Your task to perform on an android device: turn notification dots off Image 0: 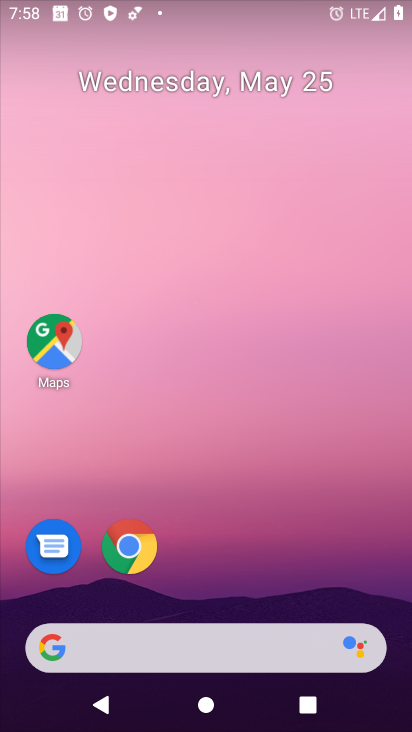
Step 0: drag from (371, 579) to (362, 266)
Your task to perform on an android device: turn notification dots off Image 1: 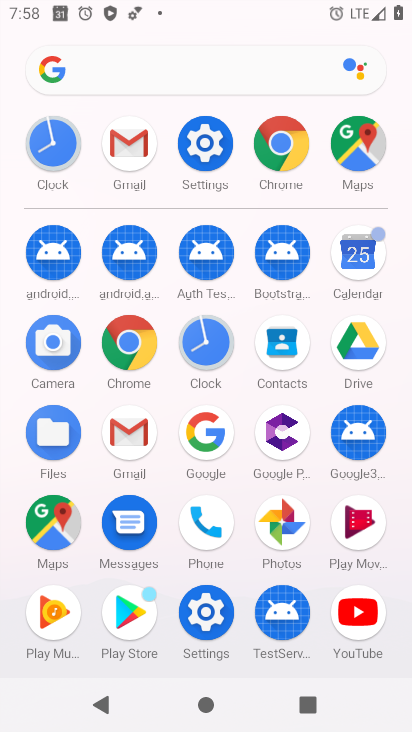
Step 1: click (212, 614)
Your task to perform on an android device: turn notification dots off Image 2: 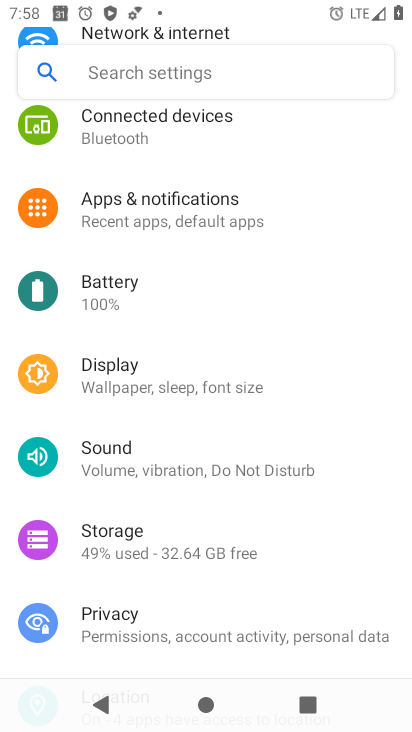
Step 2: drag from (365, 418) to (367, 355)
Your task to perform on an android device: turn notification dots off Image 3: 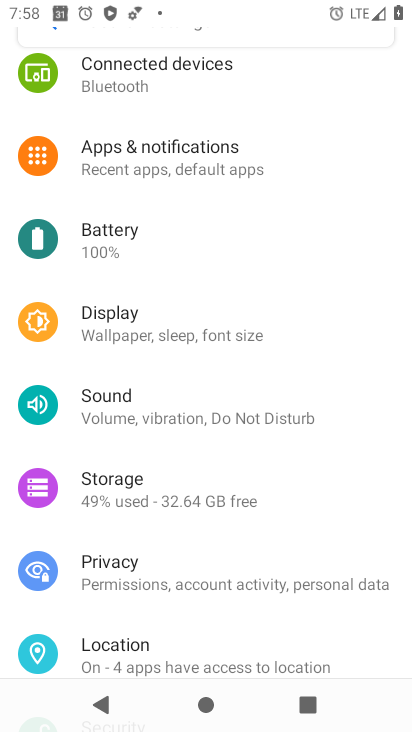
Step 3: drag from (368, 490) to (375, 351)
Your task to perform on an android device: turn notification dots off Image 4: 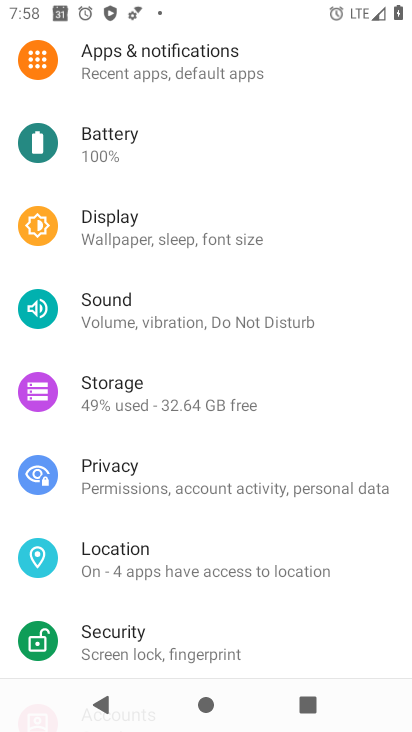
Step 4: drag from (354, 523) to (353, 390)
Your task to perform on an android device: turn notification dots off Image 5: 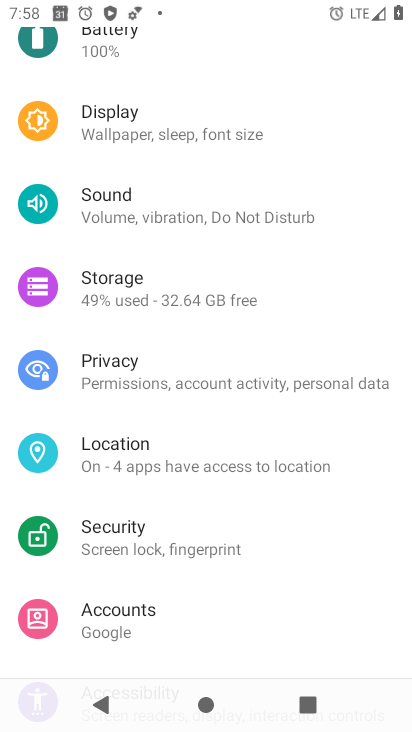
Step 5: drag from (349, 586) to (365, 461)
Your task to perform on an android device: turn notification dots off Image 6: 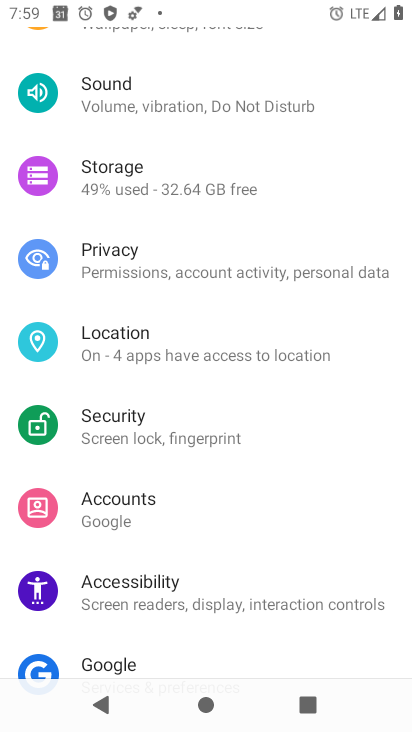
Step 6: drag from (344, 563) to (340, 365)
Your task to perform on an android device: turn notification dots off Image 7: 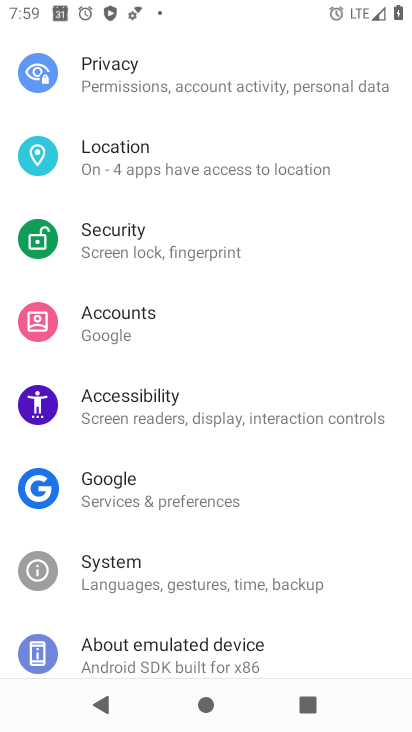
Step 7: drag from (344, 275) to (344, 357)
Your task to perform on an android device: turn notification dots off Image 8: 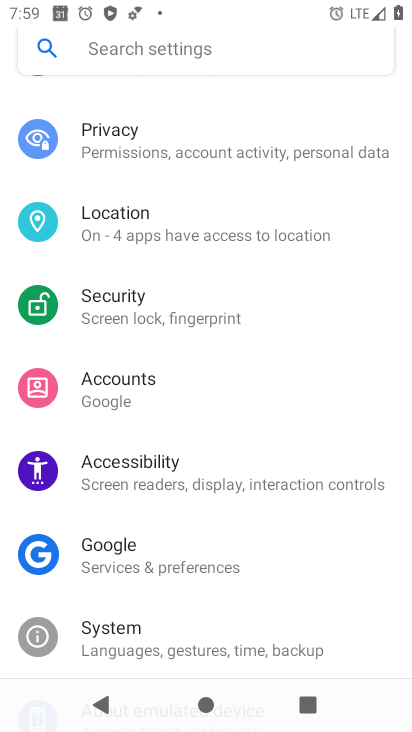
Step 8: drag from (349, 272) to (351, 364)
Your task to perform on an android device: turn notification dots off Image 9: 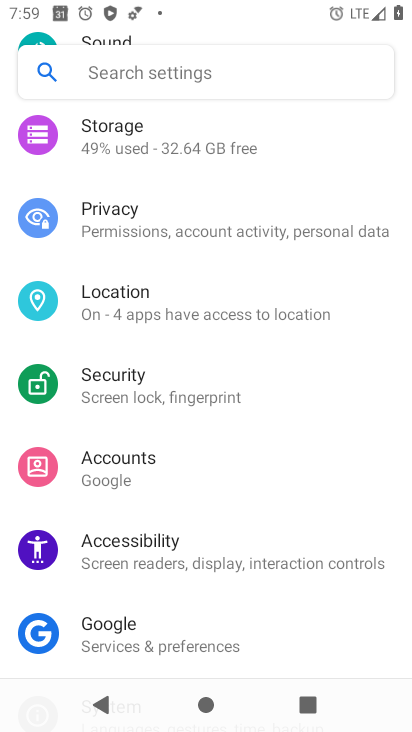
Step 9: drag from (360, 272) to (358, 363)
Your task to perform on an android device: turn notification dots off Image 10: 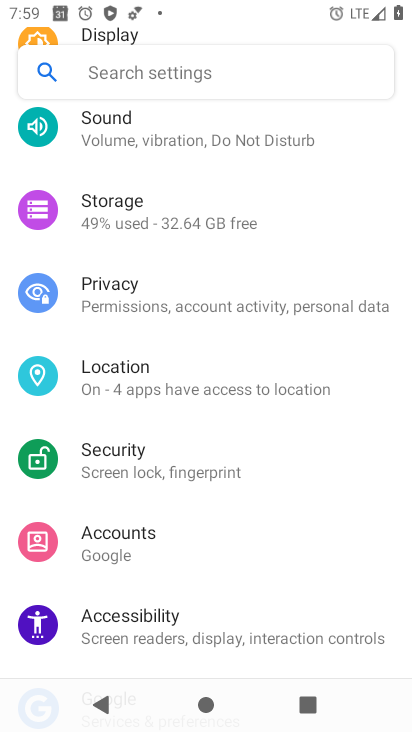
Step 10: drag from (355, 264) to (356, 365)
Your task to perform on an android device: turn notification dots off Image 11: 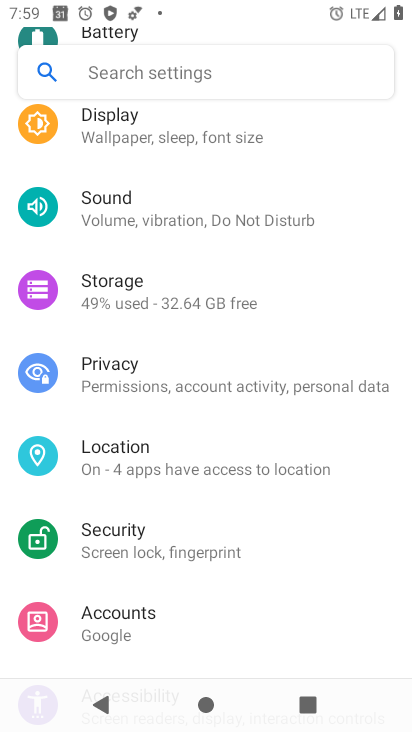
Step 11: drag from (353, 276) to (356, 369)
Your task to perform on an android device: turn notification dots off Image 12: 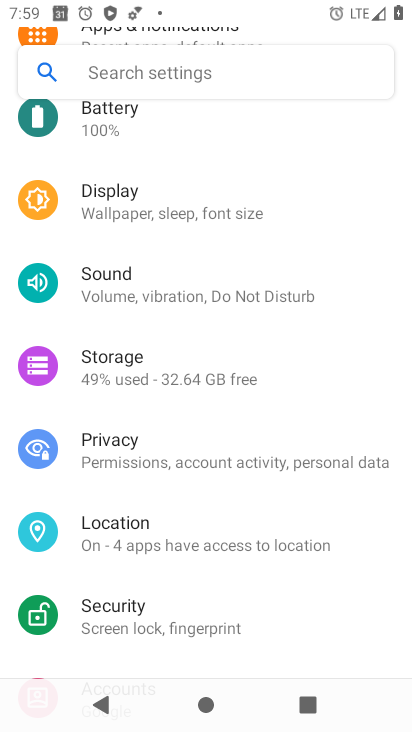
Step 12: drag from (356, 249) to (359, 376)
Your task to perform on an android device: turn notification dots off Image 13: 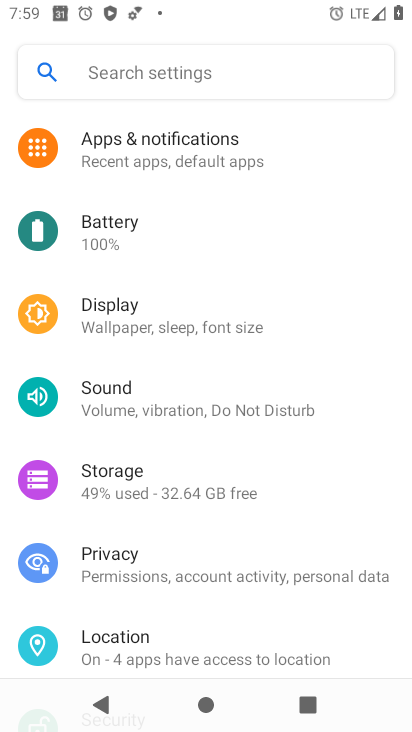
Step 13: drag from (344, 246) to (353, 349)
Your task to perform on an android device: turn notification dots off Image 14: 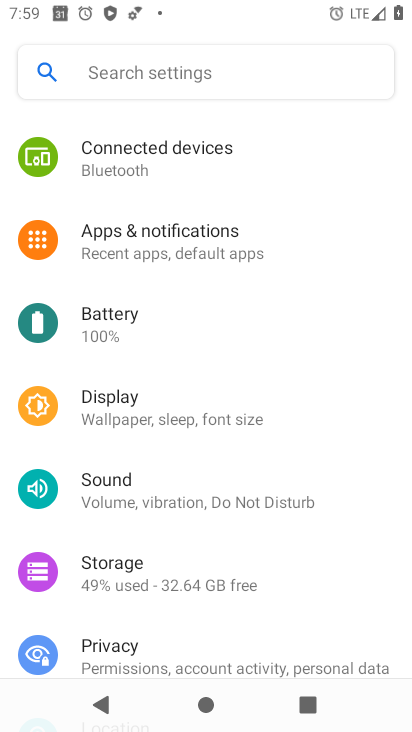
Step 14: drag from (343, 244) to (345, 346)
Your task to perform on an android device: turn notification dots off Image 15: 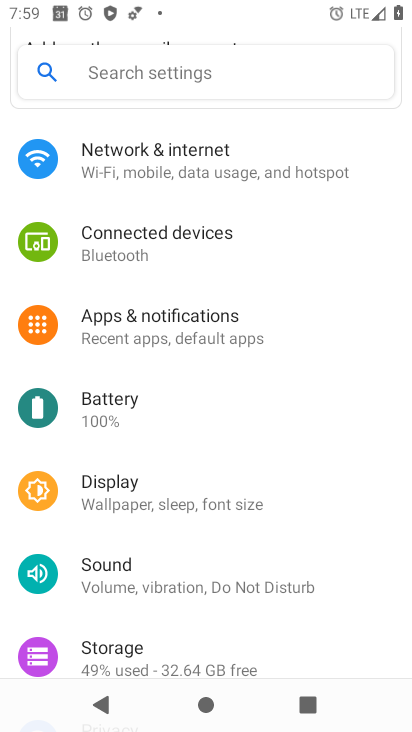
Step 15: click (244, 331)
Your task to perform on an android device: turn notification dots off Image 16: 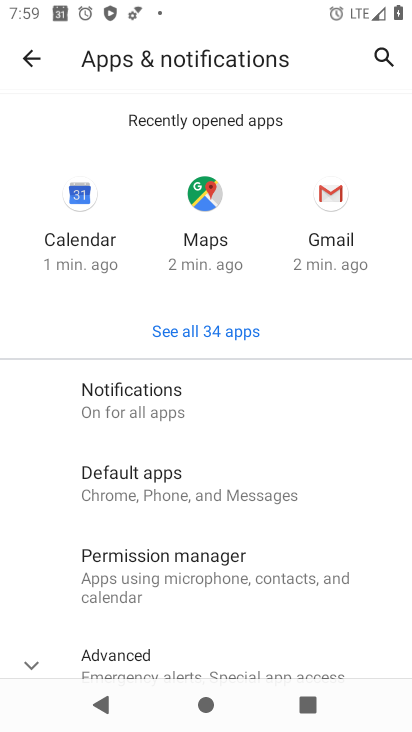
Step 16: click (174, 412)
Your task to perform on an android device: turn notification dots off Image 17: 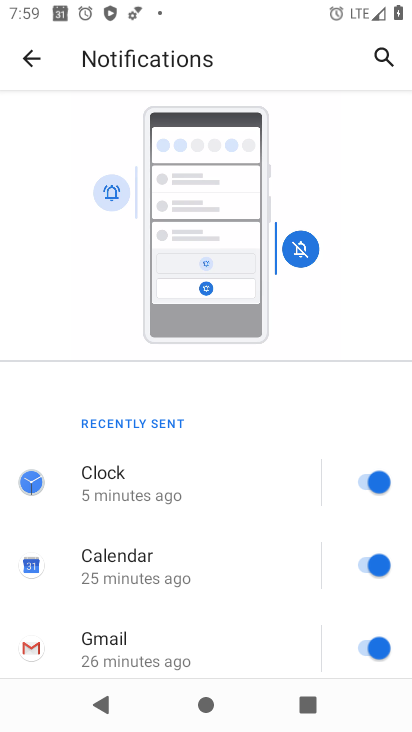
Step 17: drag from (280, 529) to (285, 420)
Your task to perform on an android device: turn notification dots off Image 18: 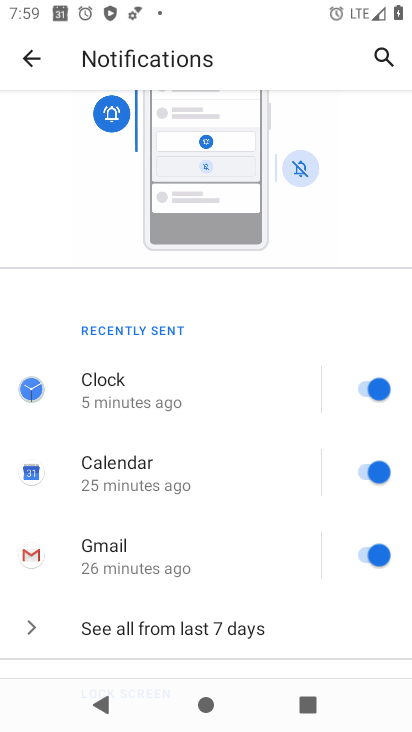
Step 18: drag from (286, 517) to (287, 369)
Your task to perform on an android device: turn notification dots off Image 19: 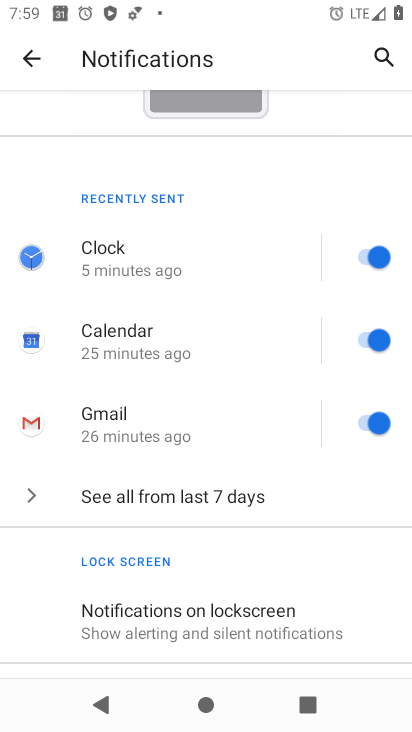
Step 19: drag from (294, 518) to (303, 417)
Your task to perform on an android device: turn notification dots off Image 20: 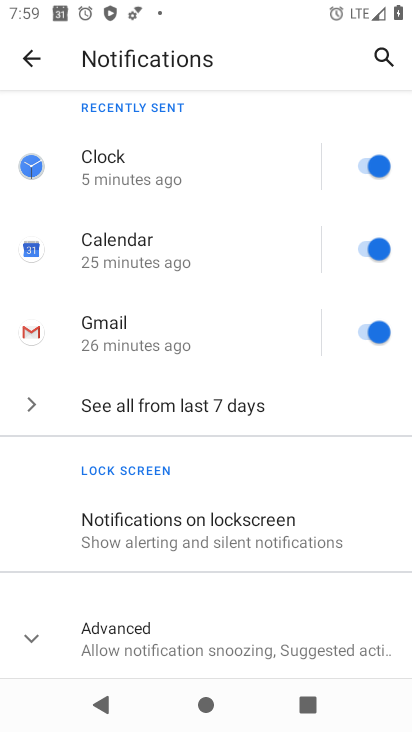
Step 20: drag from (310, 563) to (316, 476)
Your task to perform on an android device: turn notification dots off Image 21: 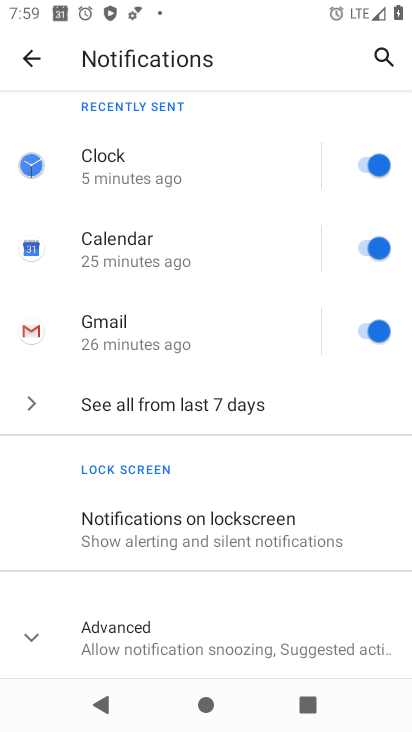
Step 21: click (280, 616)
Your task to perform on an android device: turn notification dots off Image 22: 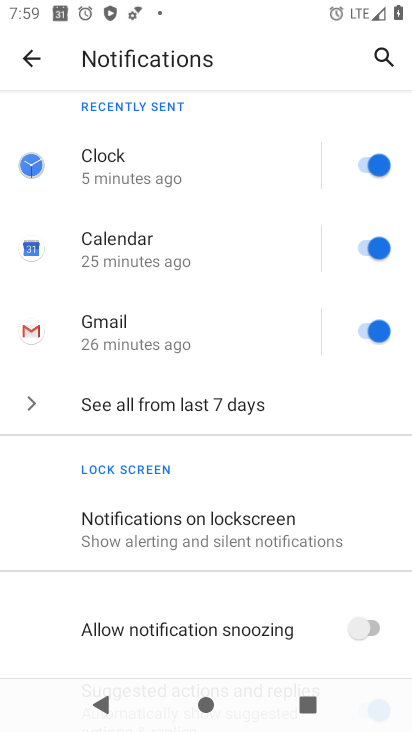
Step 22: drag from (303, 614) to (299, 426)
Your task to perform on an android device: turn notification dots off Image 23: 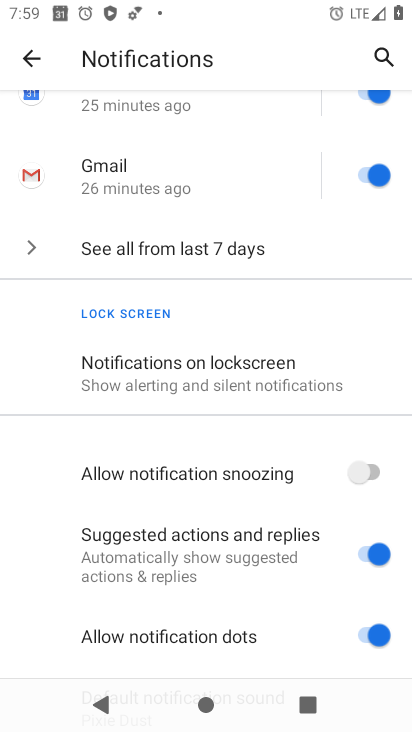
Step 23: drag from (330, 570) to (317, 472)
Your task to perform on an android device: turn notification dots off Image 24: 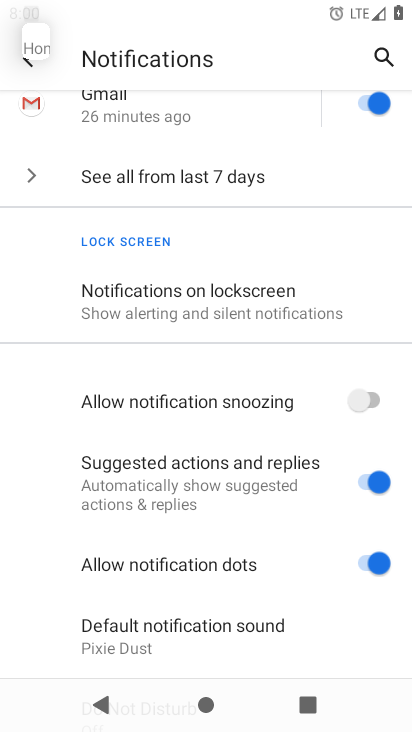
Step 24: drag from (314, 598) to (316, 481)
Your task to perform on an android device: turn notification dots off Image 25: 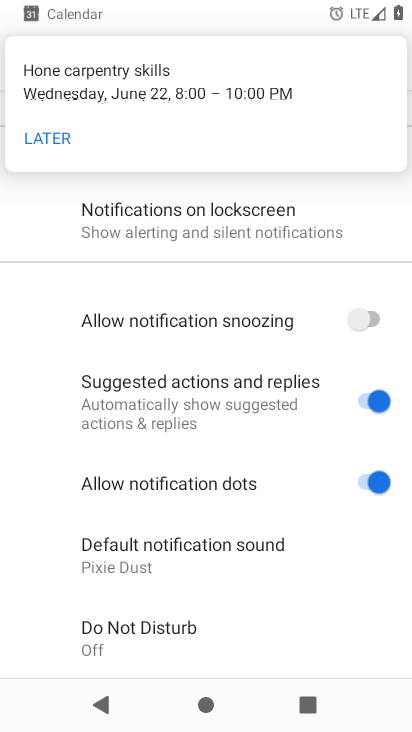
Step 25: drag from (334, 608) to (327, 493)
Your task to perform on an android device: turn notification dots off Image 26: 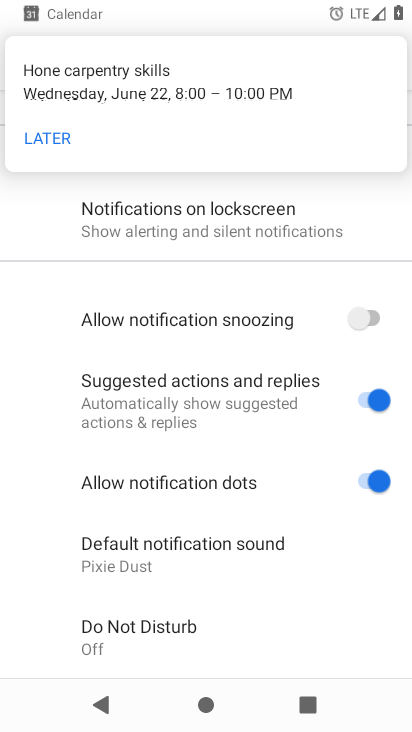
Step 26: click (366, 482)
Your task to perform on an android device: turn notification dots off Image 27: 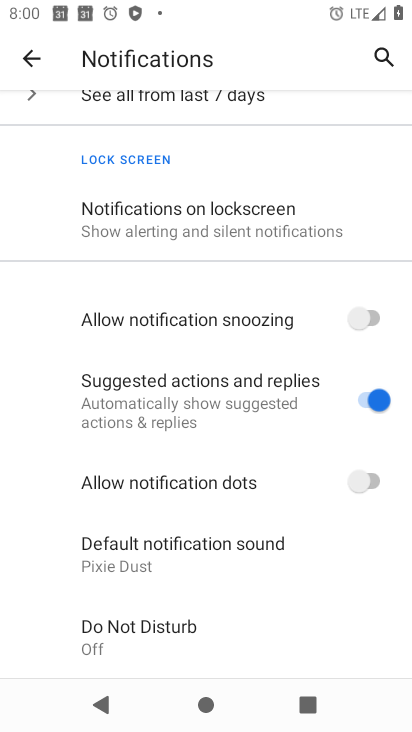
Step 27: task complete